Your task to perform on an android device: Show me popular videos on Youtube Image 0: 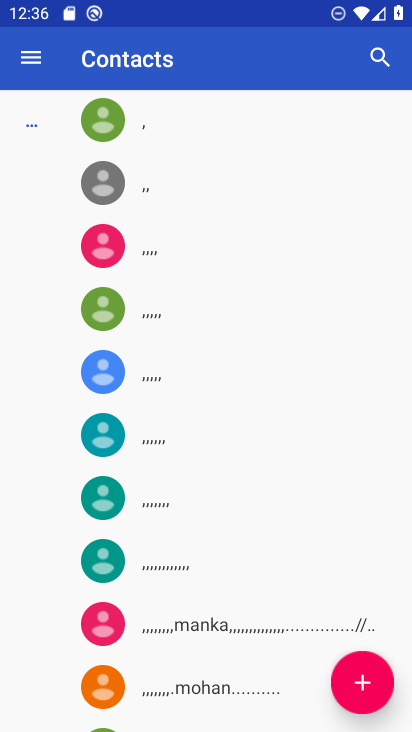
Step 0: press home button
Your task to perform on an android device: Show me popular videos on Youtube Image 1: 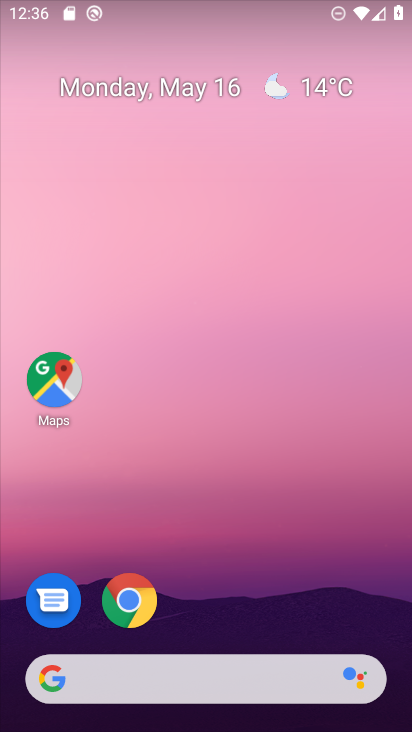
Step 1: drag from (216, 629) to (264, 49)
Your task to perform on an android device: Show me popular videos on Youtube Image 2: 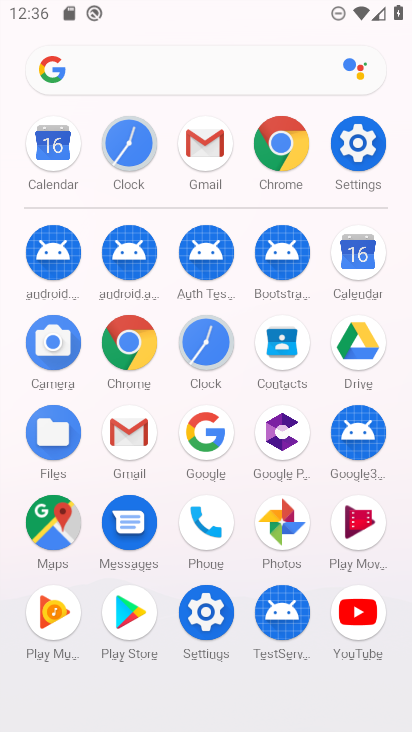
Step 2: click (353, 606)
Your task to perform on an android device: Show me popular videos on Youtube Image 3: 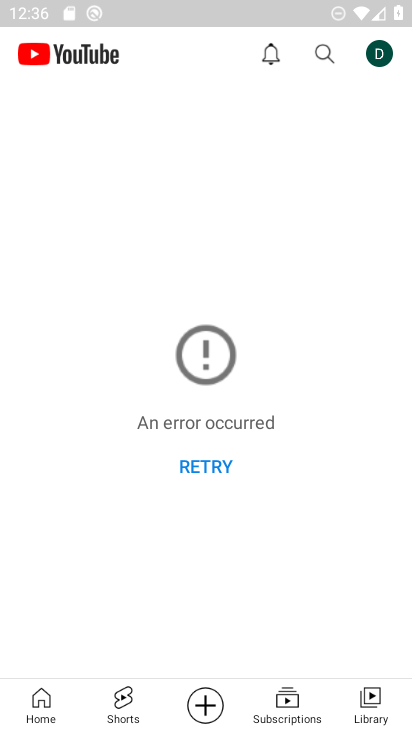
Step 3: click (204, 464)
Your task to perform on an android device: Show me popular videos on Youtube Image 4: 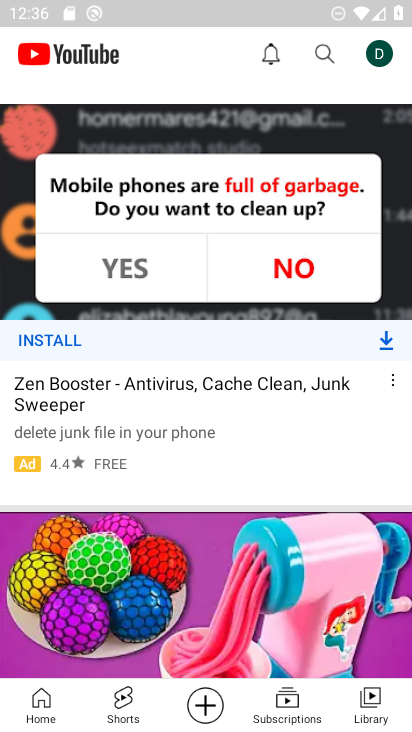
Step 4: drag from (215, 643) to (242, 140)
Your task to perform on an android device: Show me popular videos on Youtube Image 5: 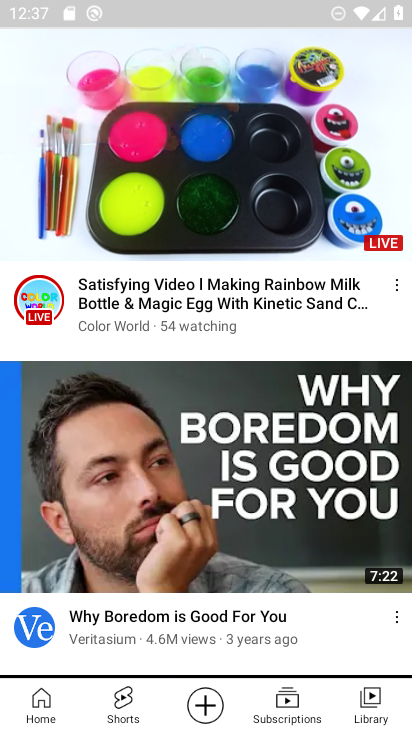
Step 5: drag from (232, 648) to (228, 264)
Your task to perform on an android device: Show me popular videos on Youtube Image 6: 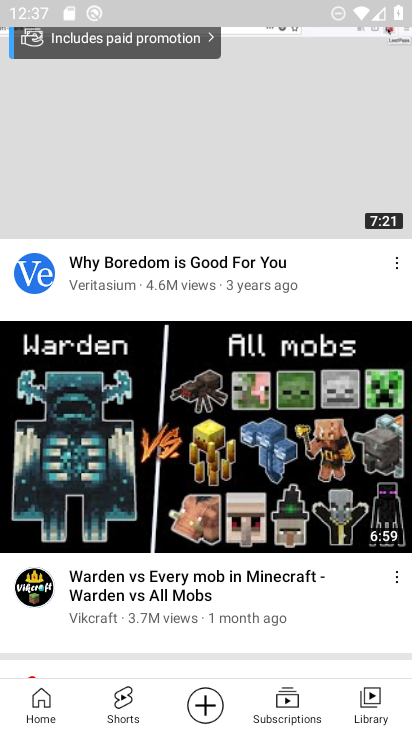
Step 6: drag from (165, 302) to (155, 638)
Your task to perform on an android device: Show me popular videos on Youtube Image 7: 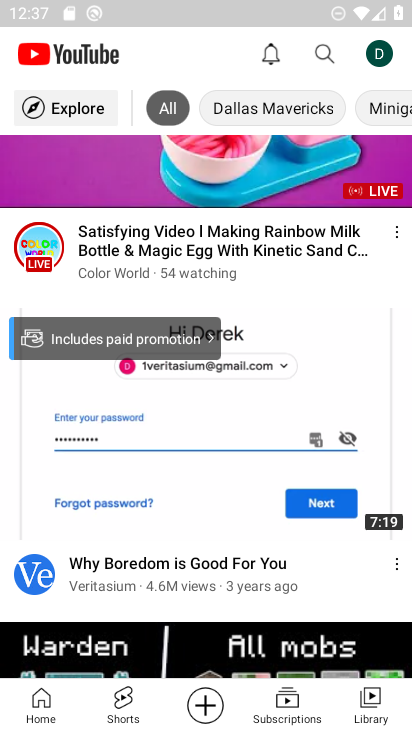
Step 7: click (68, 109)
Your task to perform on an android device: Show me popular videos on Youtube Image 8: 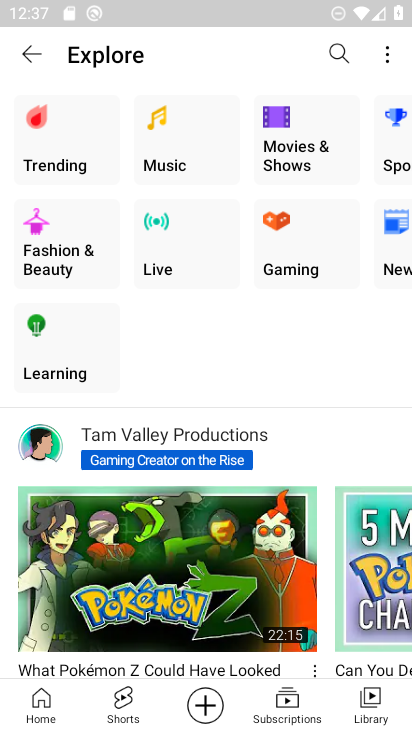
Step 8: click (61, 128)
Your task to perform on an android device: Show me popular videos on Youtube Image 9: 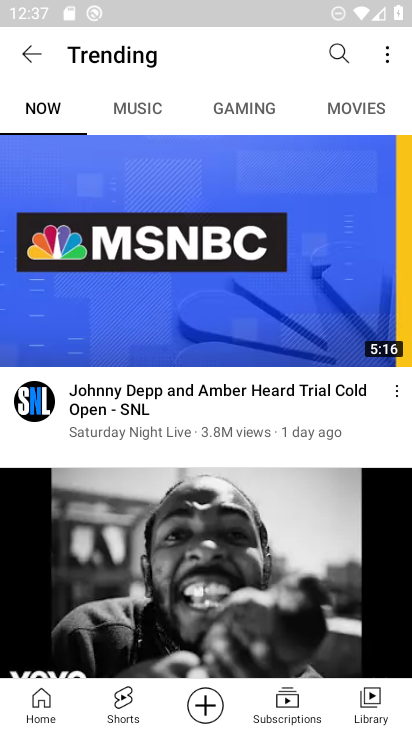
Step 9: task complete